Your task to perform on an android device: allow notifications from all sites in the chrome app Image 0: 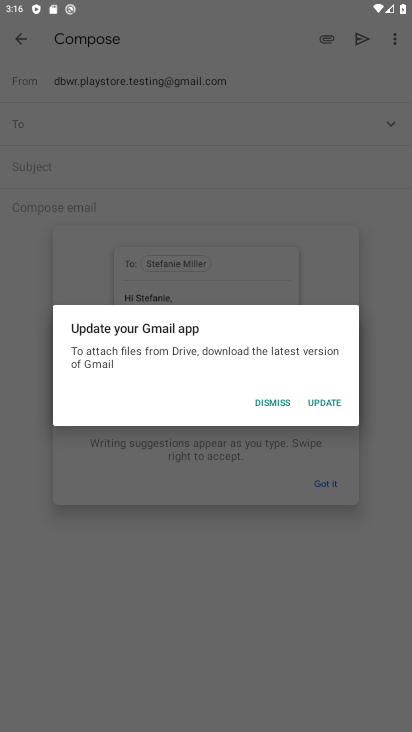
Step 0: press home button
Your task to perform on an android device: allow notifications from all sites in the chrome app Image 1: 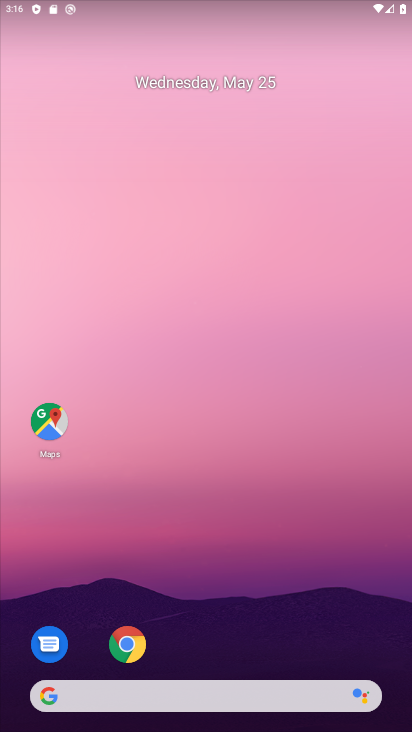
Step 1: click (135, 650)
Your task to perform on an android device: allow notifications from all sites in the chrome app Image 2: 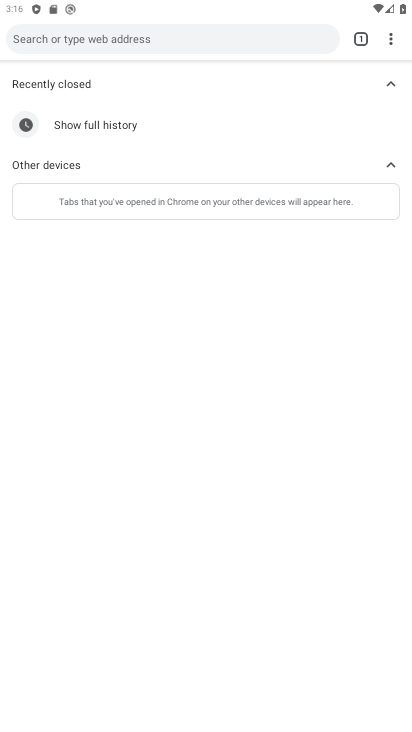
Step 2: click (392, 41)
Your task to perform on an android device: allow notifications from all sites in the chrome app Image 3: 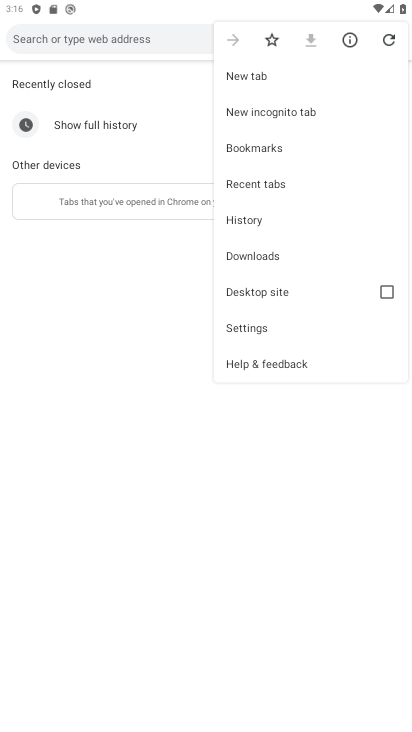
Step 3: click (244, 329)
Your task to perform on an android device: allow notifications from all sites in the chrome app Image 4: 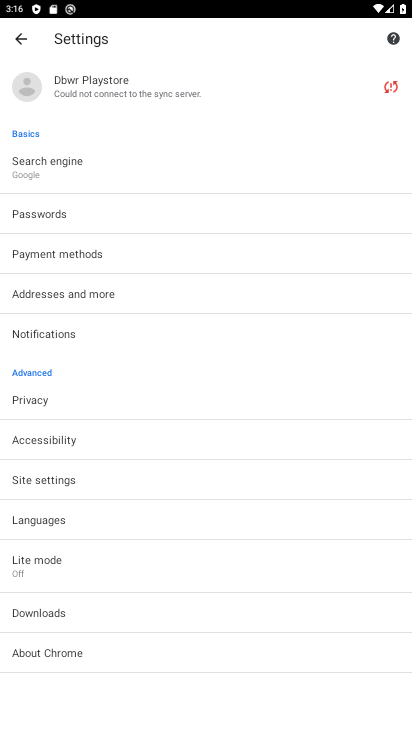
Step 4: click (40, 475)
Your task to perform on an android device: allow notifications from all sites in the chrome app Image 5: 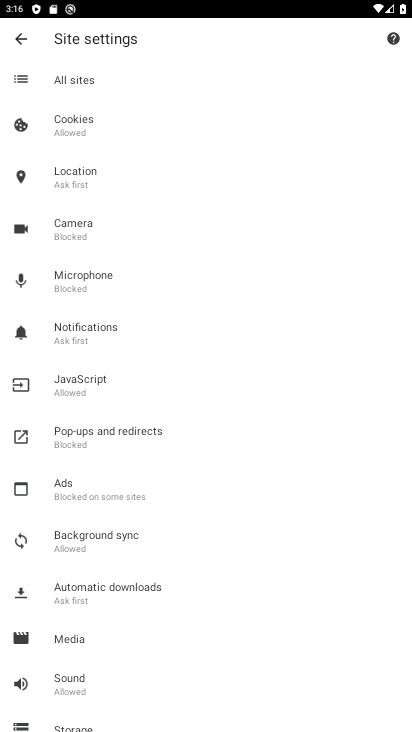
Step 5: click (71, 337)
Your task to perform on an android device: allow notifications from all sites in the chrome app Image 6: 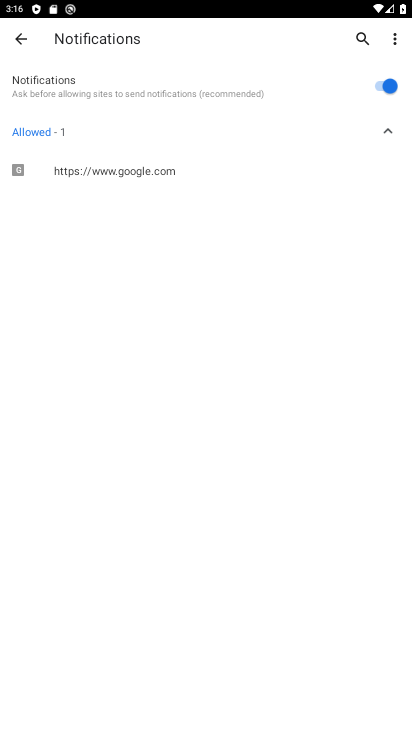
Step 6: task complete